Your task to perform on an android device: turn on airplane mode Image 0: 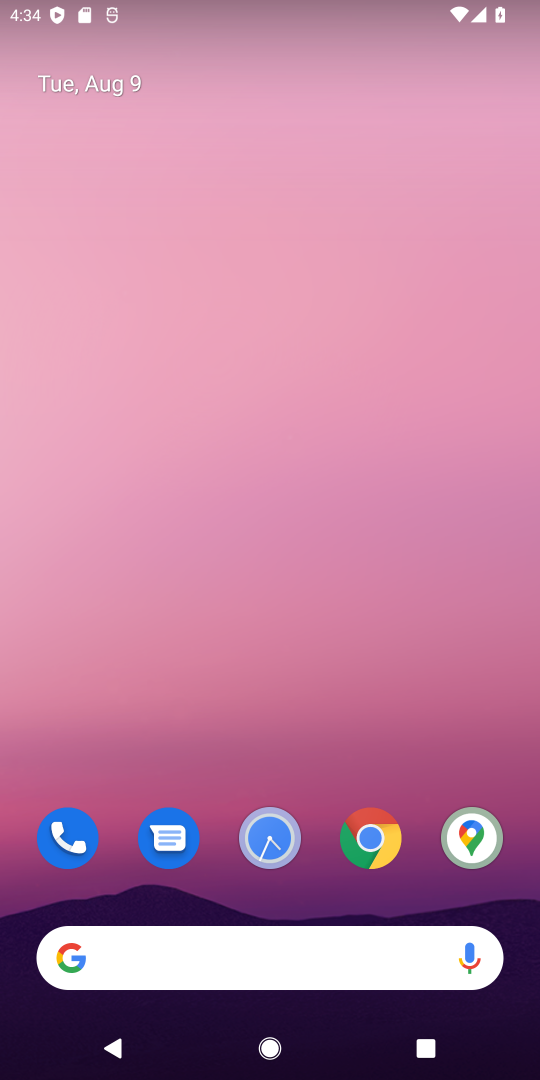
Step 0: drag from (296, 767) to (348, 51)
Your task to perform on an android device: turn on airplane mode Image 1: 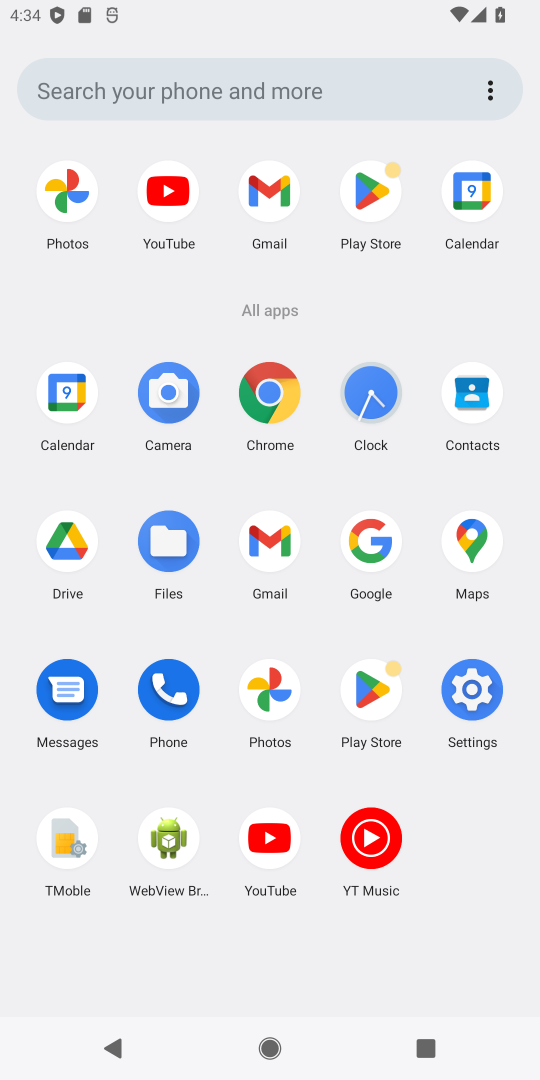
Step 1: click (466, 693)
Your task to perform on an android device: turn on airplane mode Image 2: 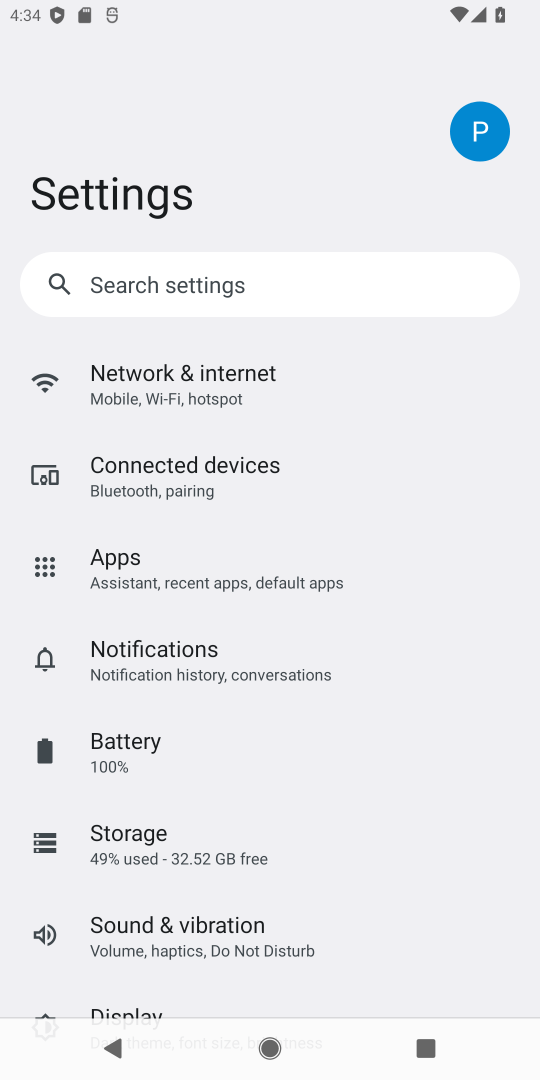
Step 2: click (319, 370)
Your task to perform on an android device: turn on airplane mode Image 3: 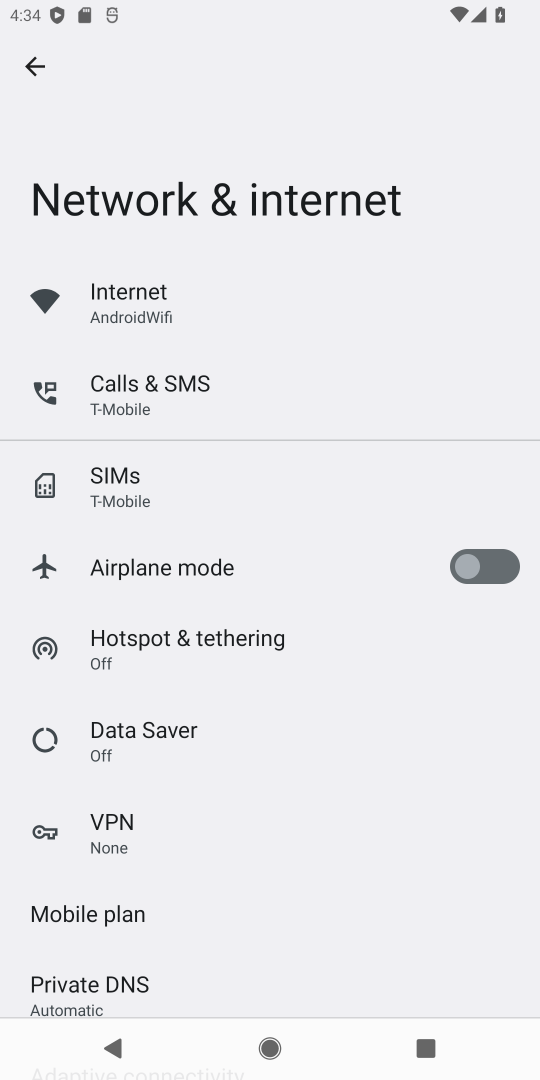
Step 3: click (506, 561)
Your task to perform on an android device: turn on airplane mode Image 4: 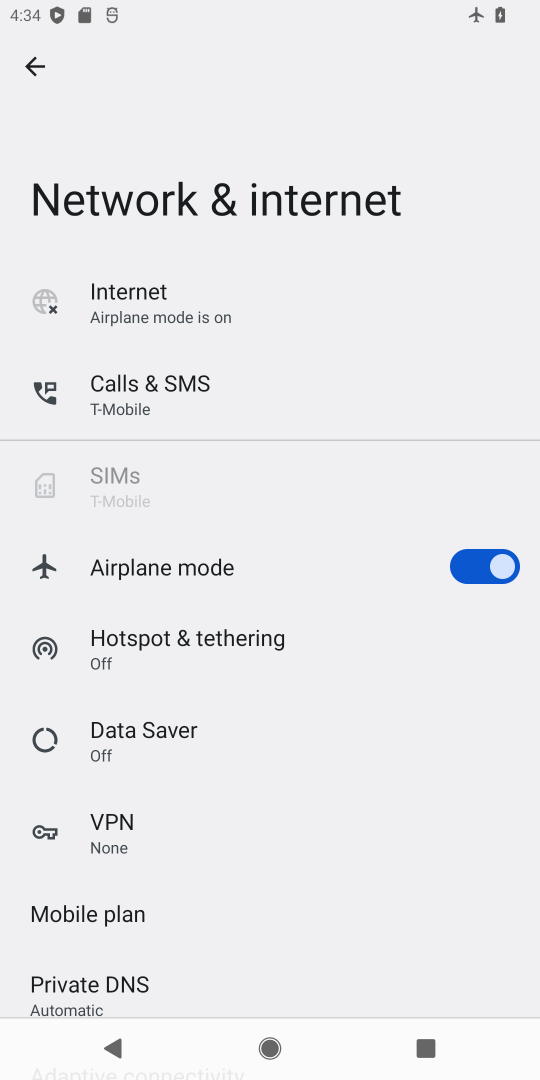
Step 4: task complete